Your task to perform on an android device: open app "Grab" (install if not already installed), go to login, and select forgot password Image 0: 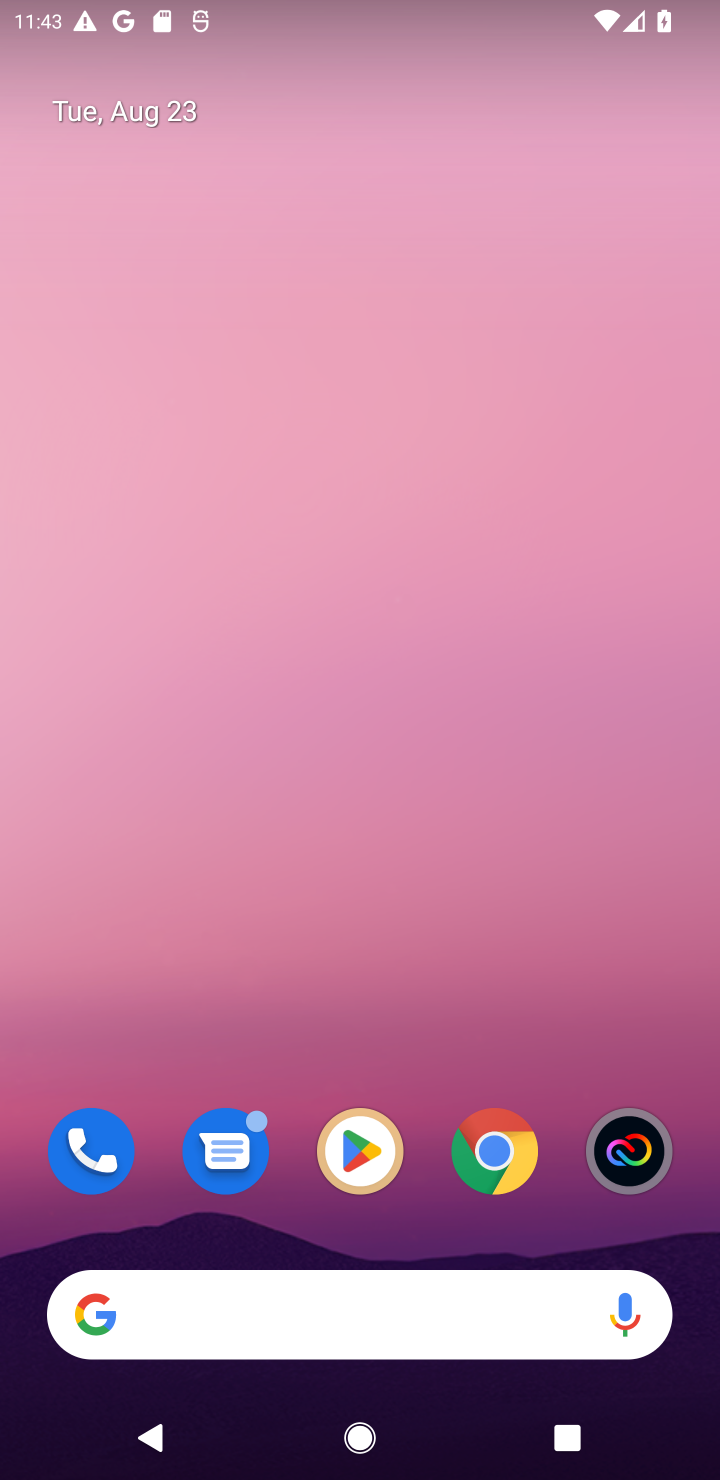
Step 0: click (372, 1122)
Your task to perform on an android device: open app "Grab" (install if not already installed), go to login, and select forgot password Image 1: 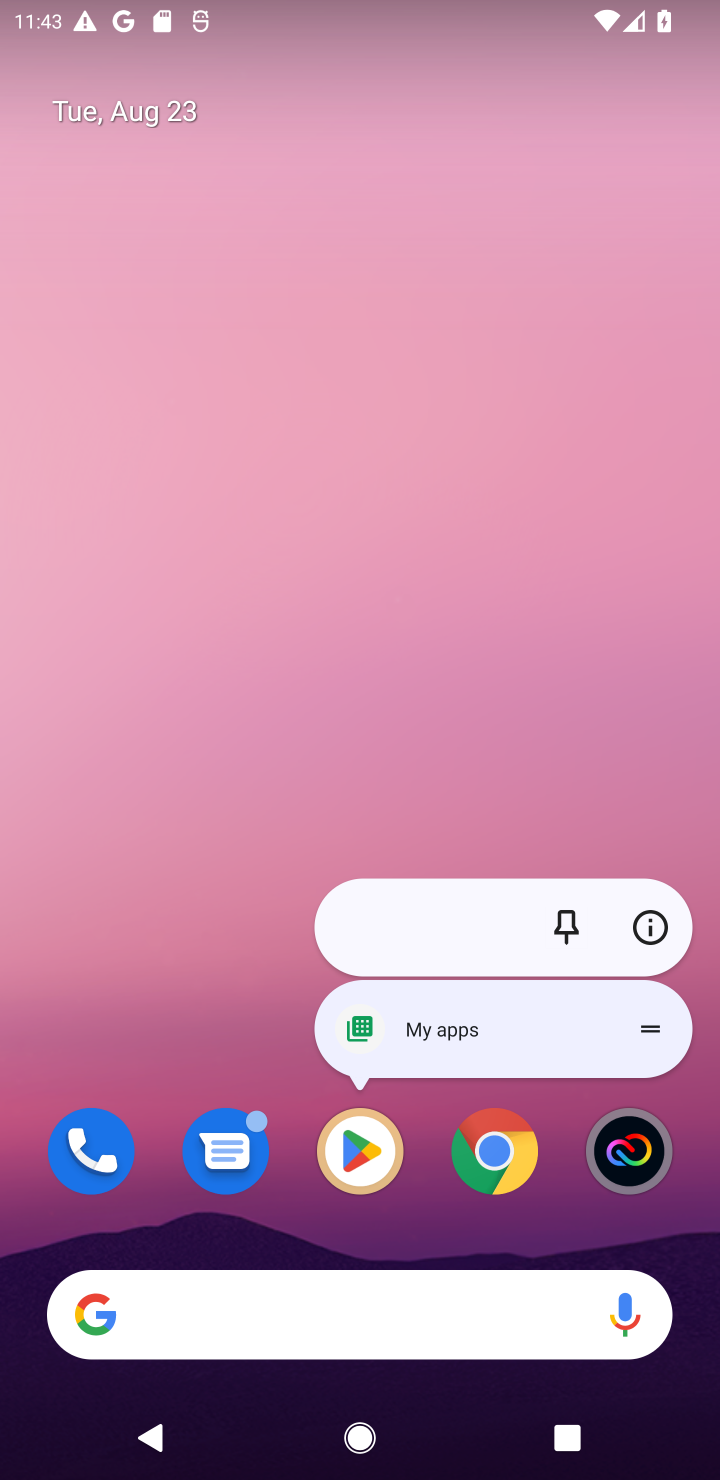
Step 1: click (351, 1132)
Your task to perform on an android device: open app "Grab" (install if not already installed), go to login, and select forgot password Image 2: 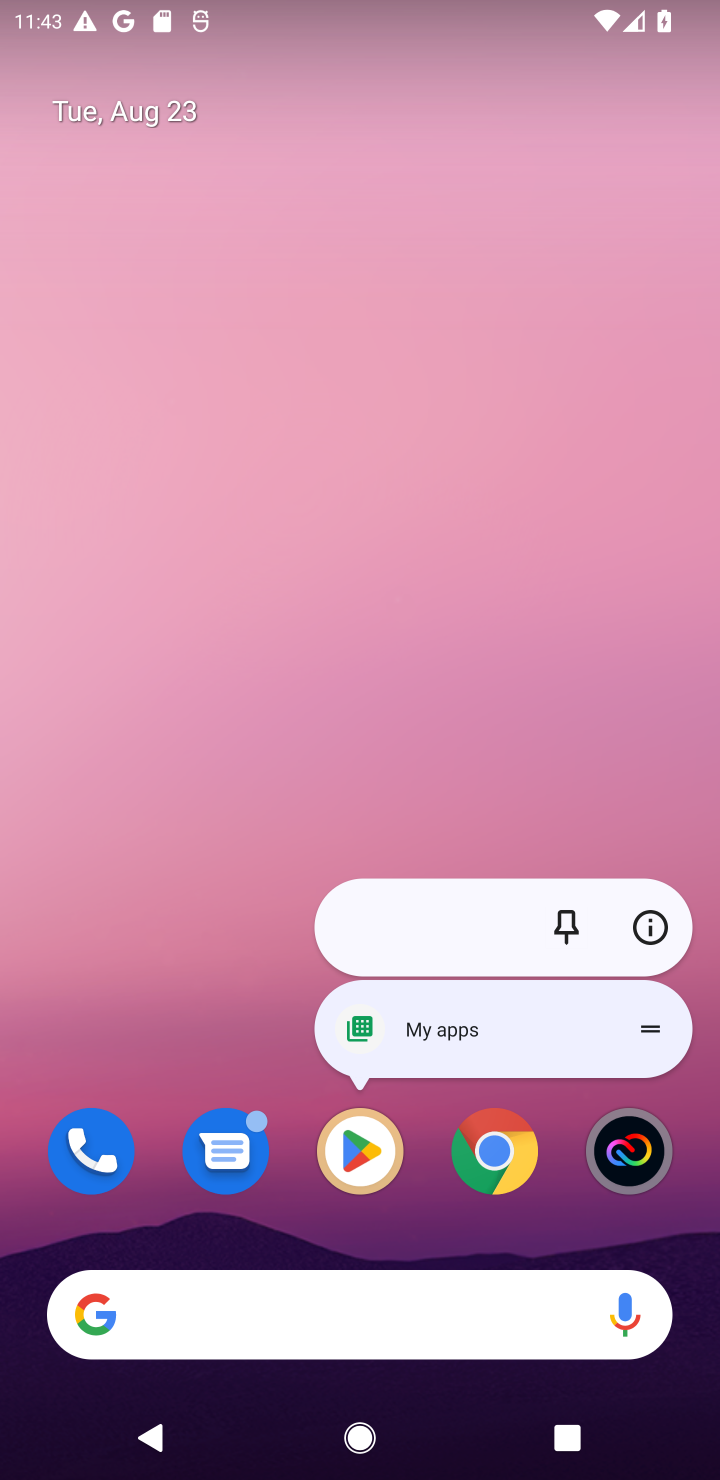
Step 2: click (382, 1159)
Your task to perform on an android device: open app "Grab" (install if not already installed), go to login, and select forgot password Image 3: 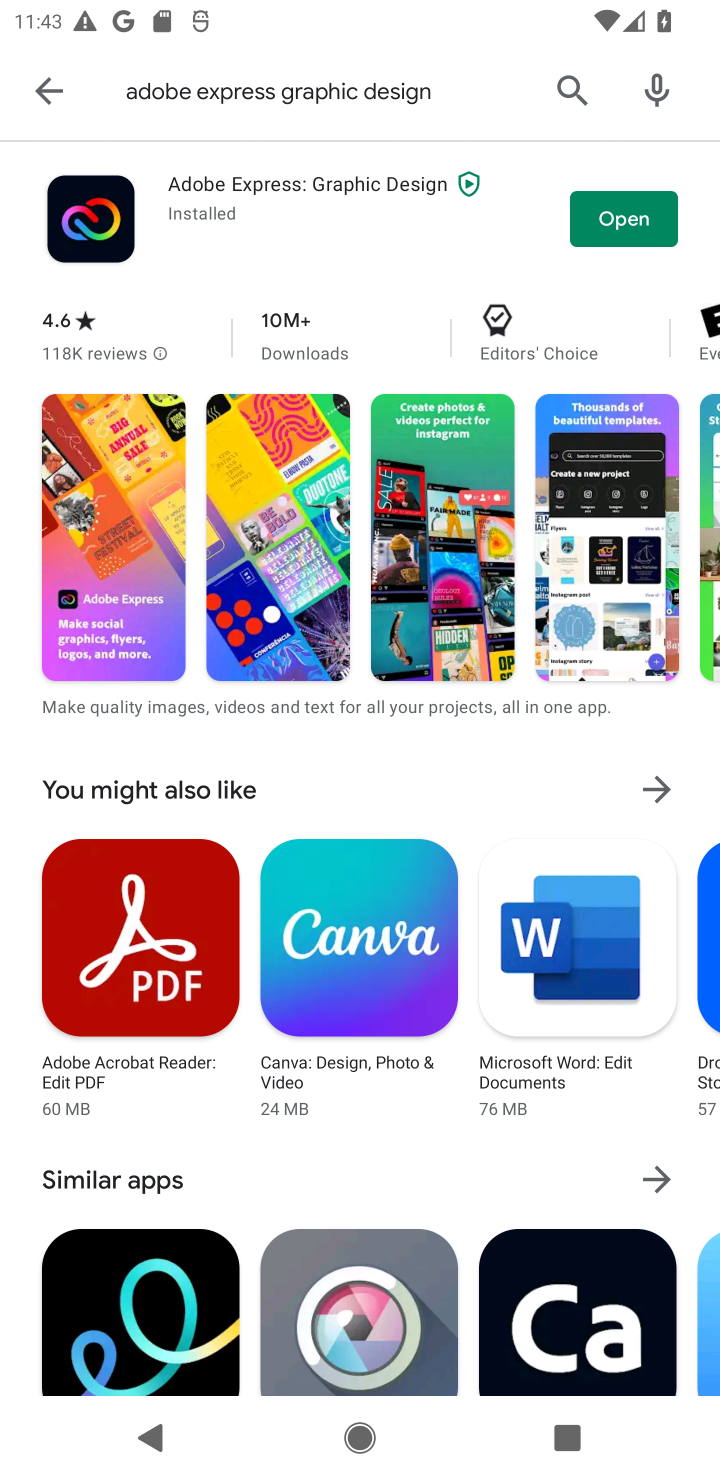
Step 3: click (554, 86)
Your task to perform on an android device: open app "Grab" (install if not already installed), go to login, and select forgot password Image 4: 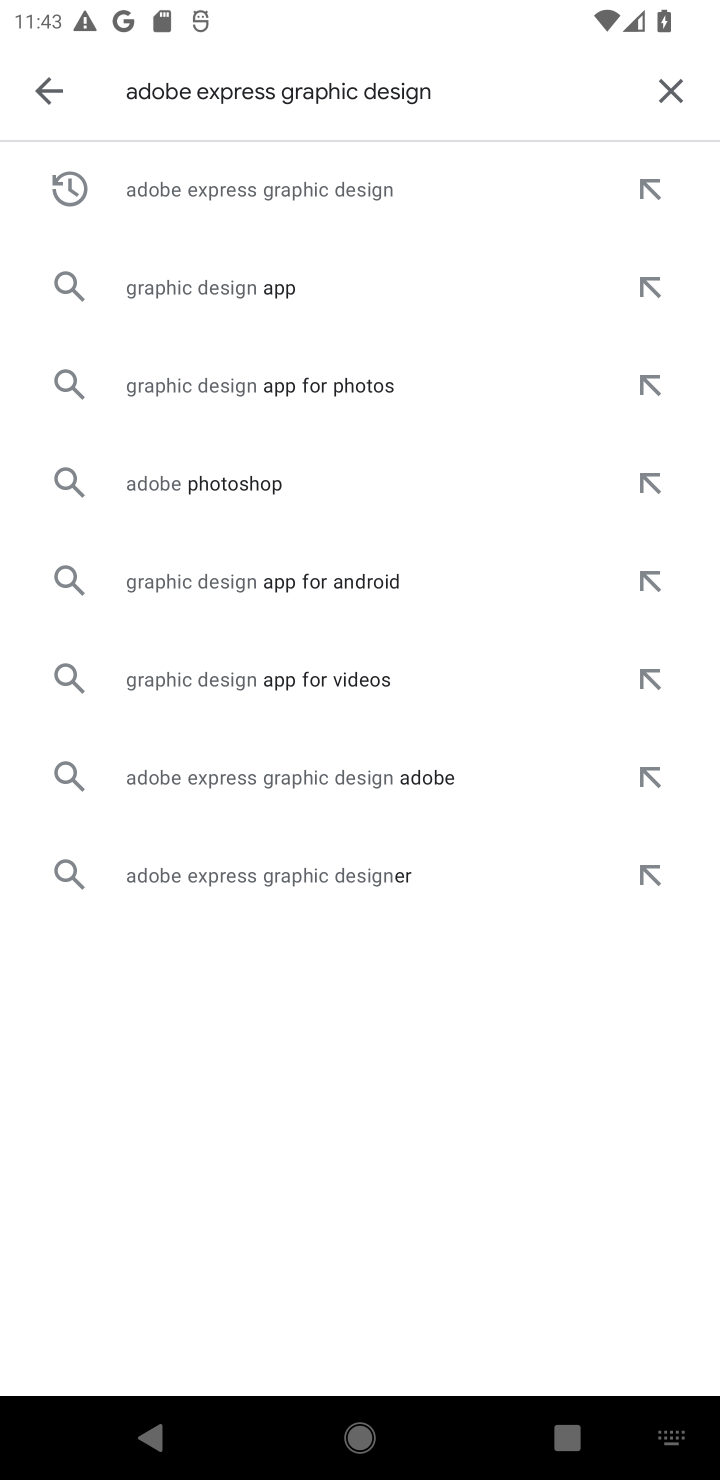
Step 4: click (666, 103)
Your task to perform on an android device: open app "Grab" (install if not already installed), go to login, and select forgot password Image 5: 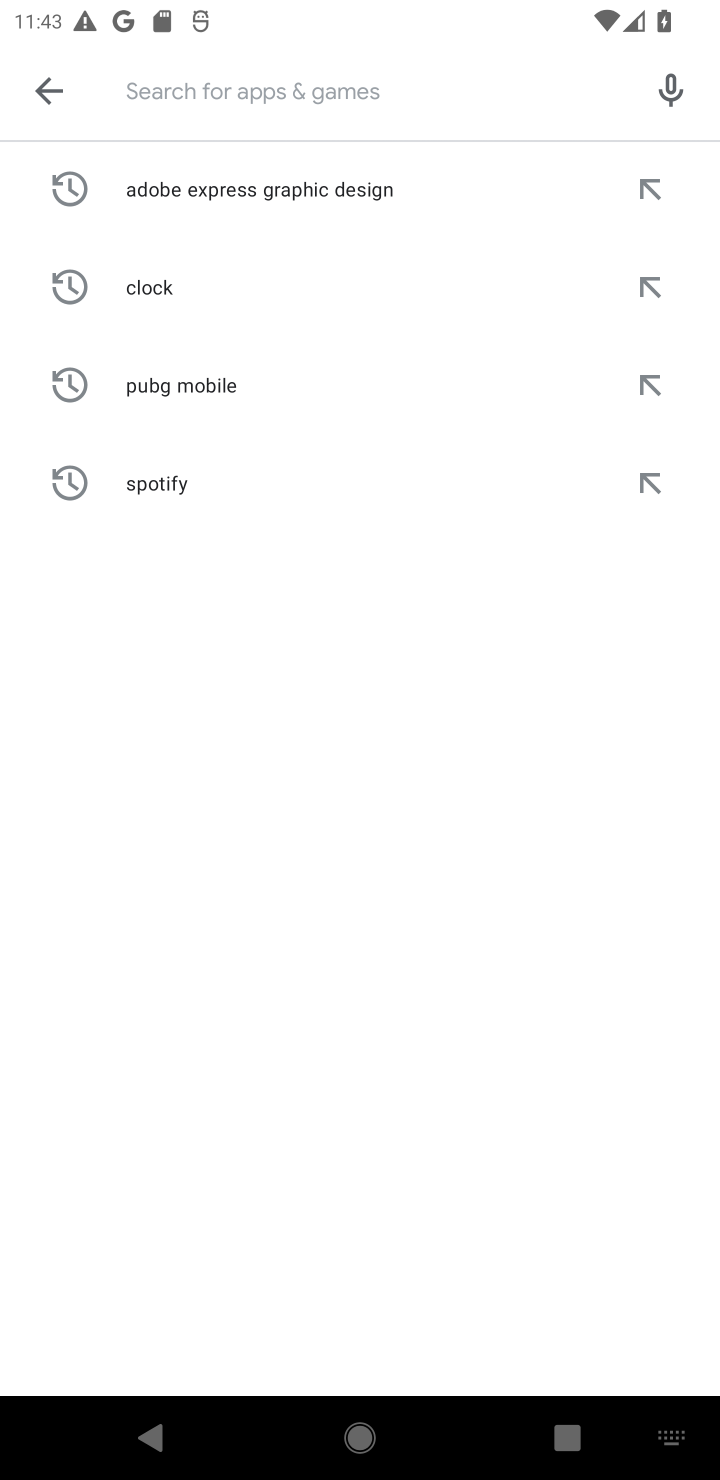
Step 5: type "Grab"
Your task to perform on an android device: open app "Grab" (install if not already installed), go to login, and select forgot password Image 6: 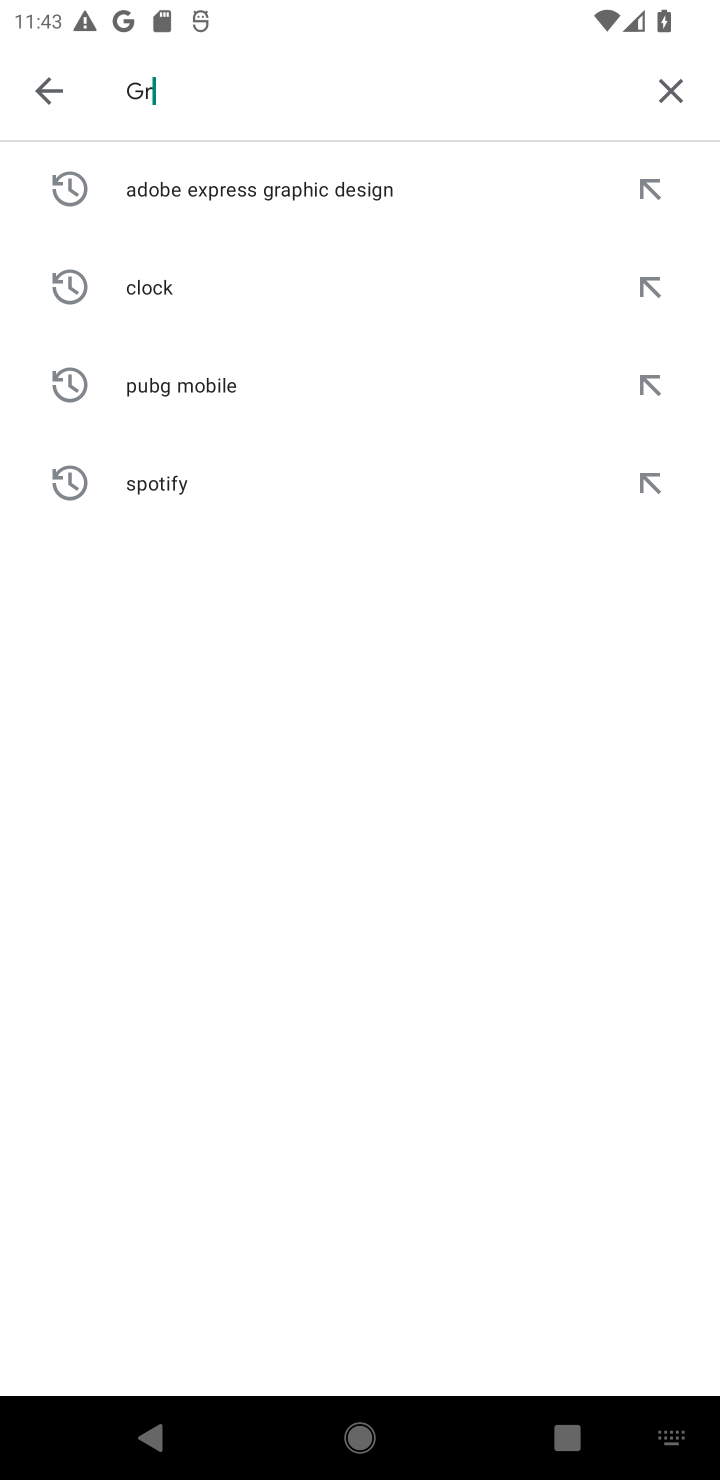
Step 6: type ""
Your task to perform on an android device: open app "Grab" (install if not already installed), go to login, and select forgot password Image 7: 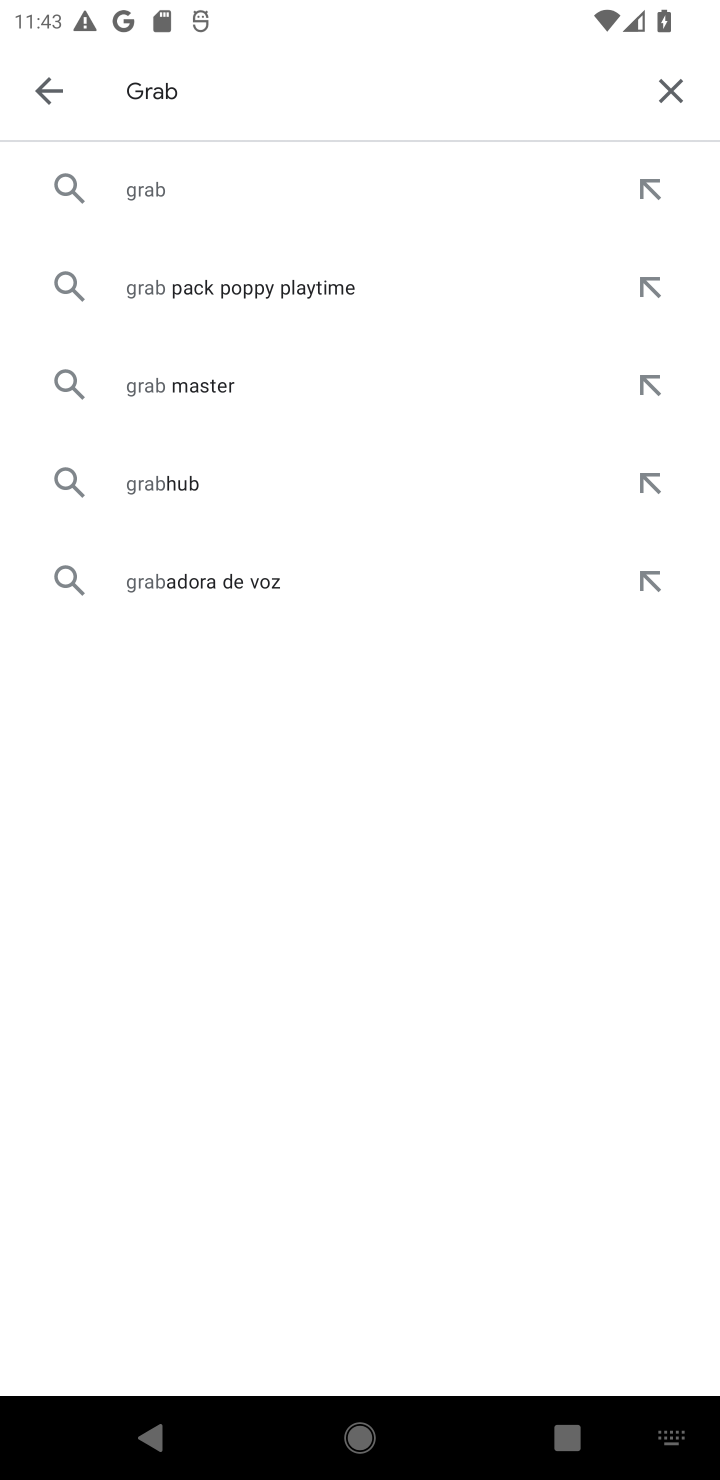
Step 7: click (208, 173)
Your task to perform on an android device: open app "Grab" (install if not already installed), go to login, and select forgot password Image 8: 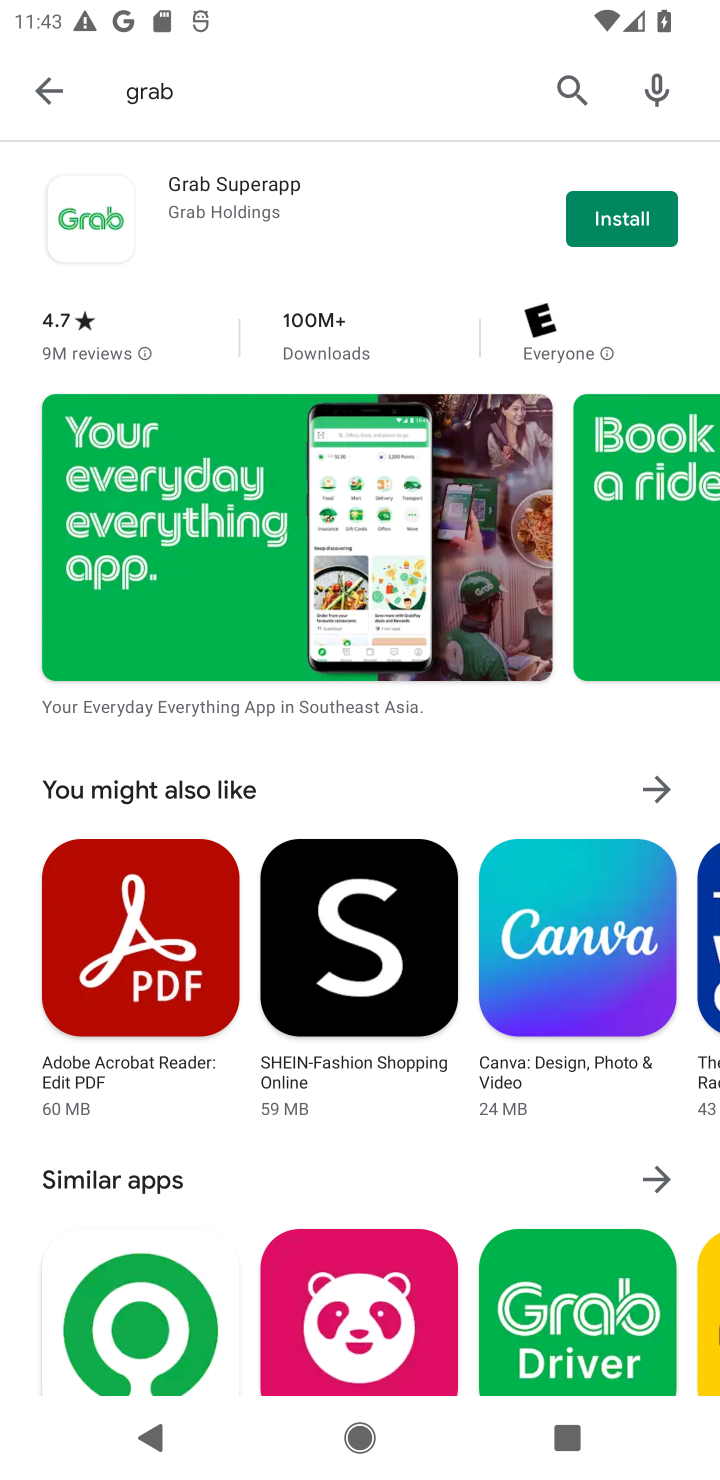
Step 8: click (582, 214)
Your task to perform on an android device: open app "Grab" (install if not already installed), go to login, and select forgot password Image 9: 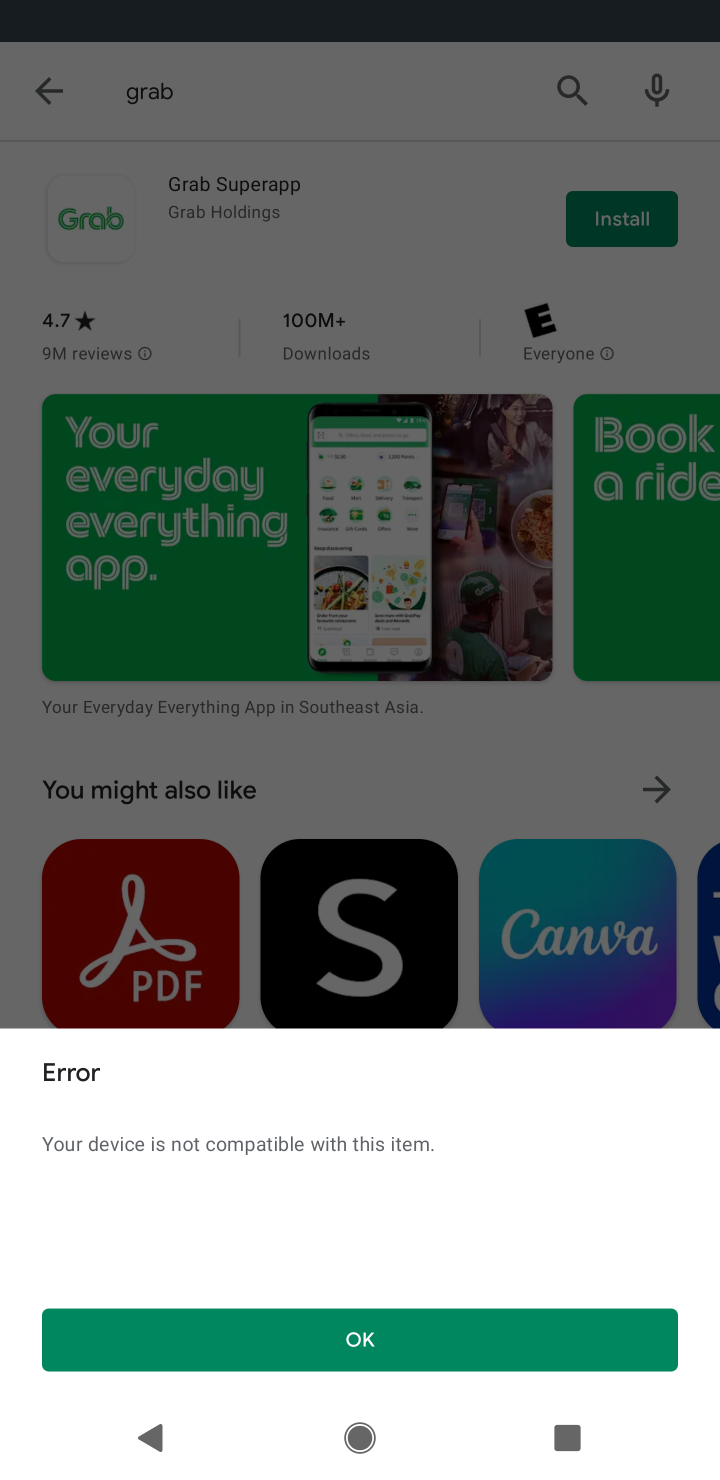
Step 9: task complete